Your task to perform on an android device: When is my next meeting? Image 0: 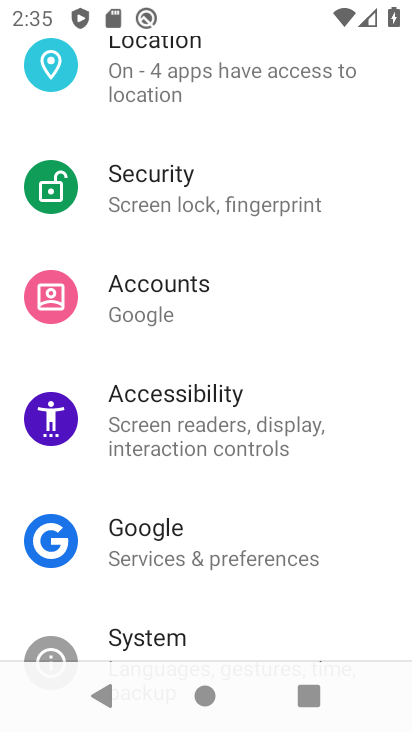
Step 0: press back button
Your task to perform on an android device: When is my next meeting? Image 1: 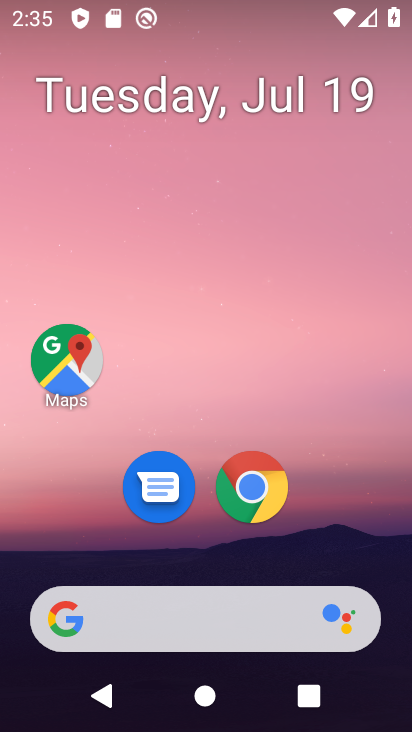
Step 1: drag from (156, 533) to (292, 0)
Your task to perform on an android device: When is my next meeting? Image 2: 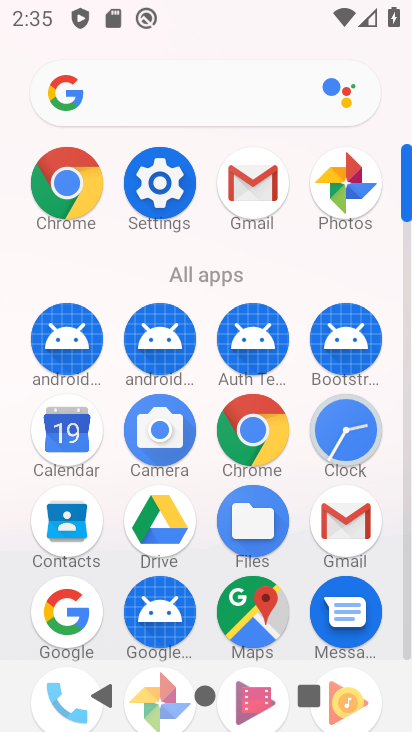
Step 2: click (67, 432)
Your task to perform on an android device: When is my next meeting? Image 3: 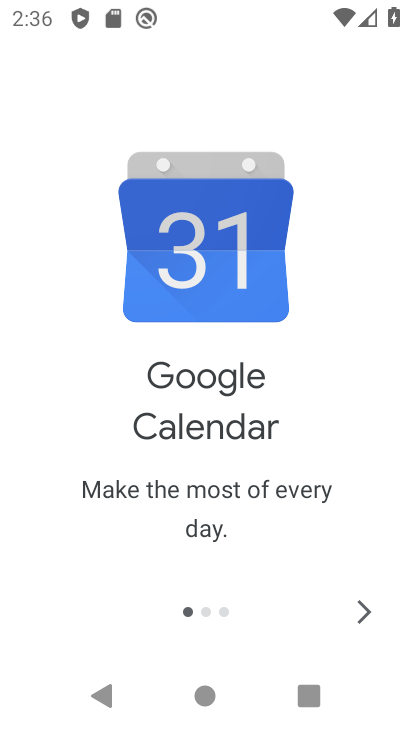
Step 3: click (373, 599)
Your task to perform on an android device: When is my next meeting? Image 4: 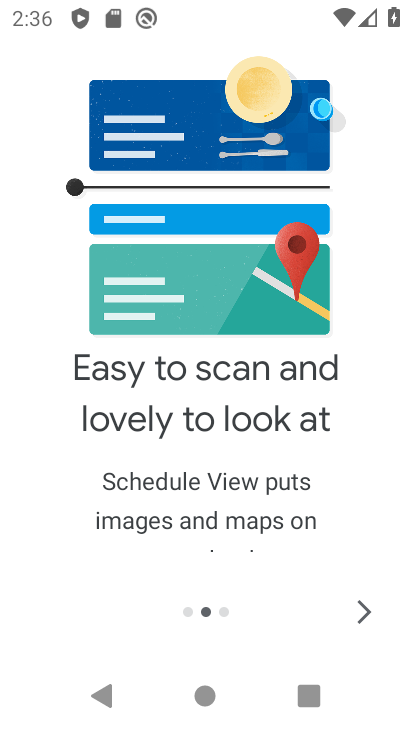
Step 4: click (360, 588)
Your task to perform on an android device: When is my next meeting? Image 5: 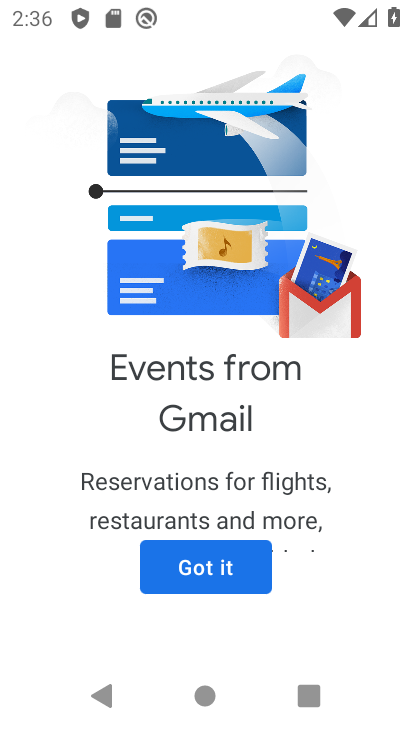
Step 5: click (183, 564)
Your task to perform on an android device: When is my next meeting? Image 6: 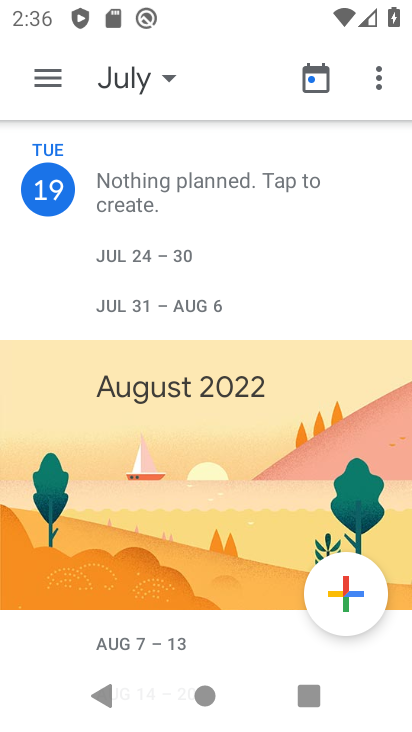
Step 6: task complete